Your task to perform on an android device: Do I have any events this weekend? Image 0: 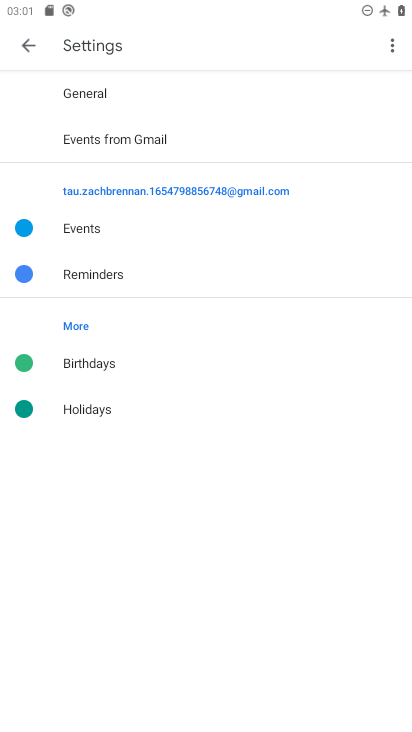
Step 0: press home button
Your task to perform on an android device: Do I have any events this weekend? Image 1: 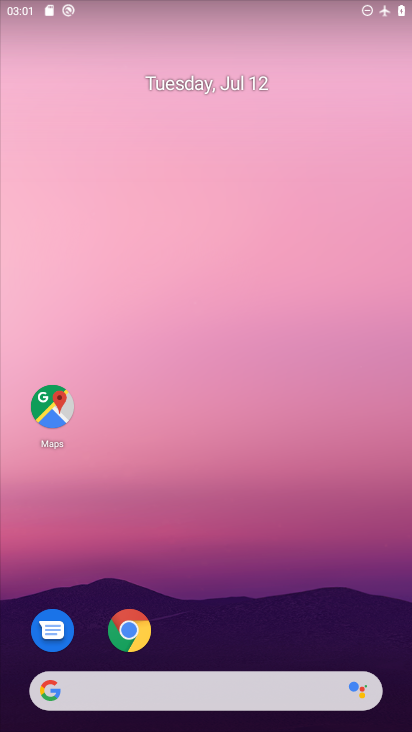
Step 1: drag from (378, 648) to (364, 121)
Your task to perform on an android device: Do I have any events this weekend? Image 2: 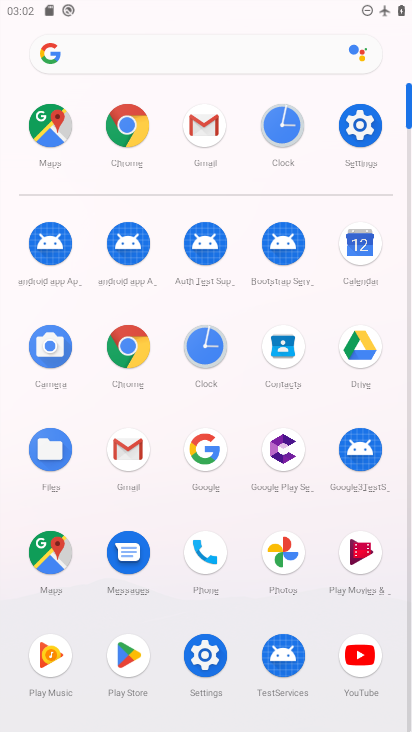
Step 2: click (358, 242)
Your task to perform on an android device: Do I have any events this weekend? Image 3: 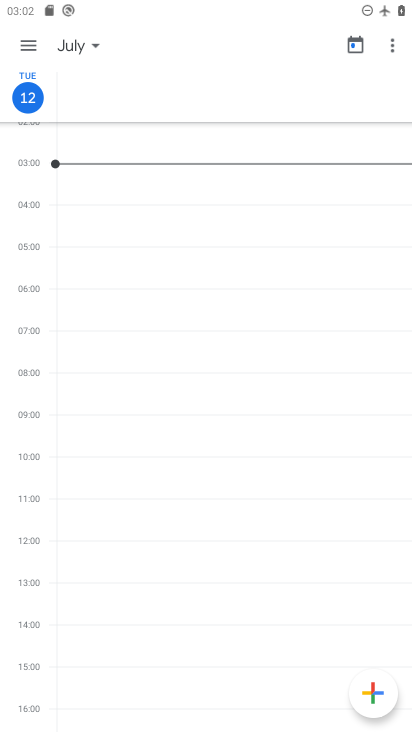
Step 3: click (26, 43)
Your task to perform on an android device: Do I have any events this weekend? Image 4: 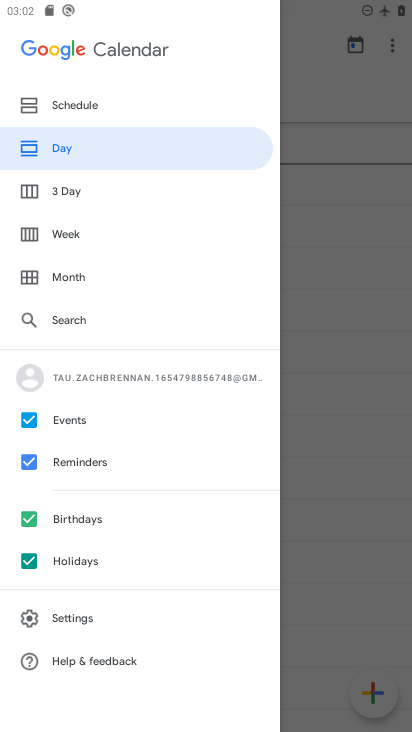
Step 4: click (64, 239)
Your task to perform on an android device: Do I have any events this weekend? Image 5: 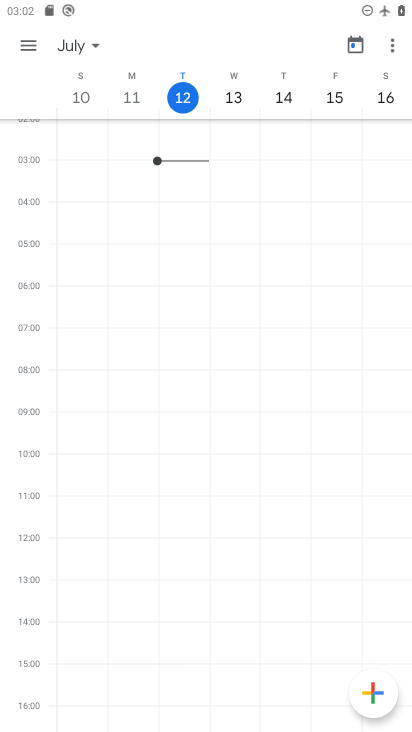
Step 5: task complete